Your task to perform on an android device: What's the weather? Image 0: 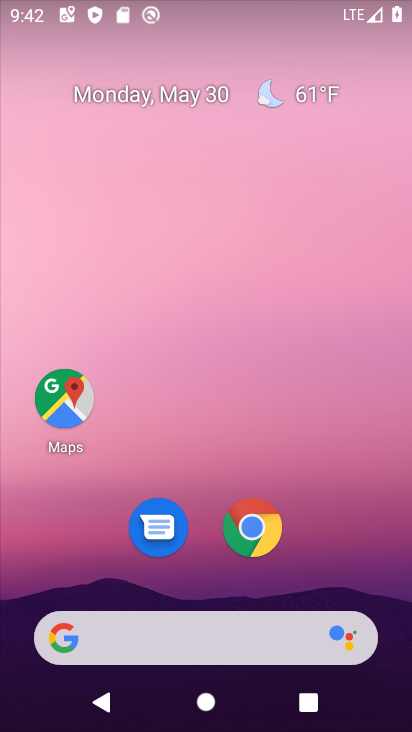
Step 0: click (217, 639)
Your task to perform on an android device: What's the weather? Image 1: 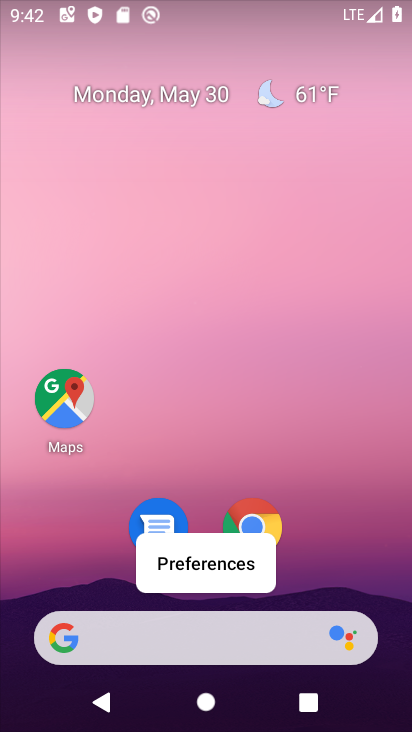
Step 1: click (217, 635)
Your task to perform on an android device: What's the weather? Image 2: 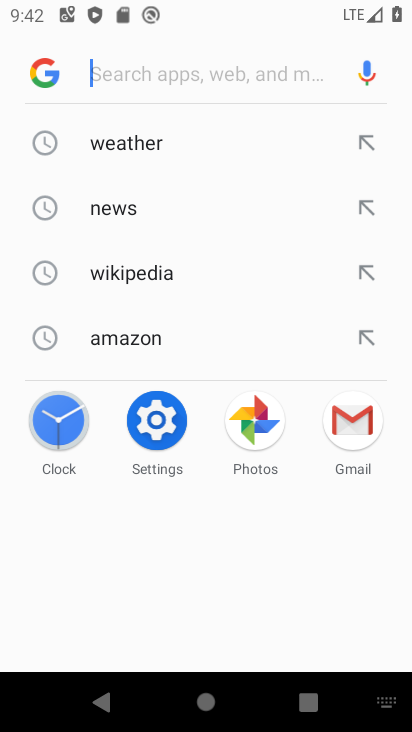
Step 2: type "what's the weather"
Your task to perform on an android device: What's the weather? Image 3: 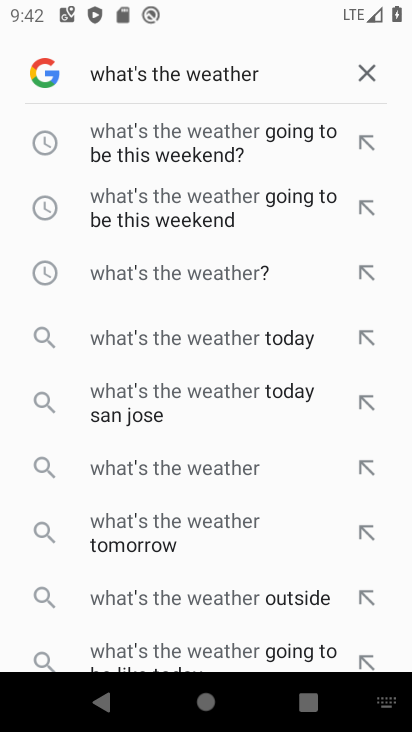
Step 3: click (205, 267)
Your task to perform on an android device: What's the weather? Image 4: 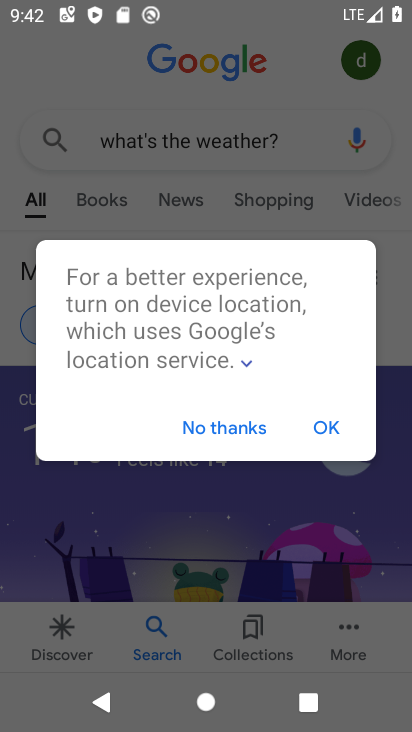
Step 4: click (327, 425)
Your task to perform on an android device: What's the weather? Image 5: 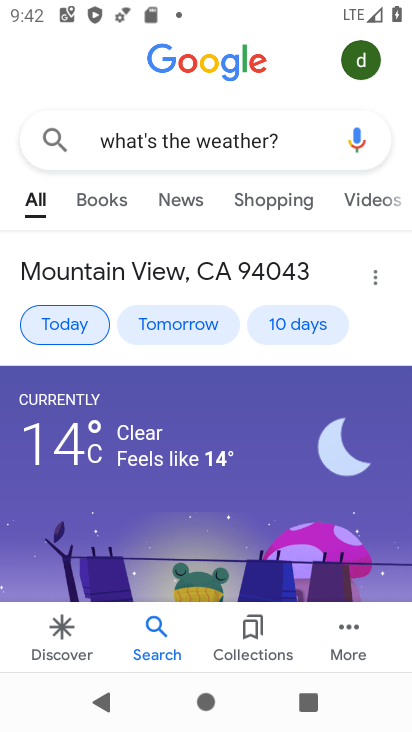
Step 5: task complete